Your task to perform on an android device: turn on notifications settings in the gmail app Image 0: 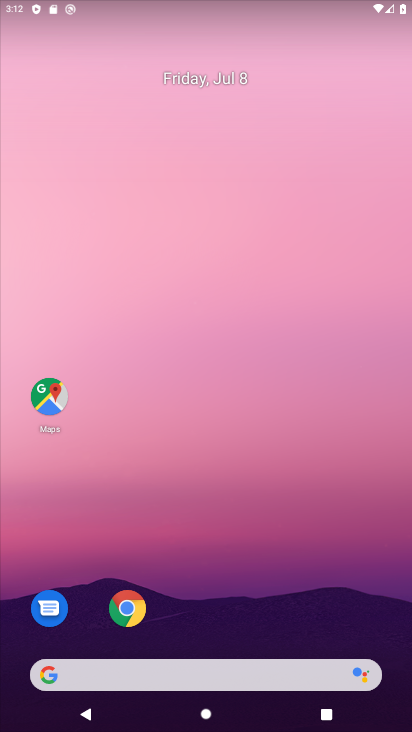
Step 0: press home button
Your task to perform on an android device: turn on notifications settings in the gmail app Image 1: 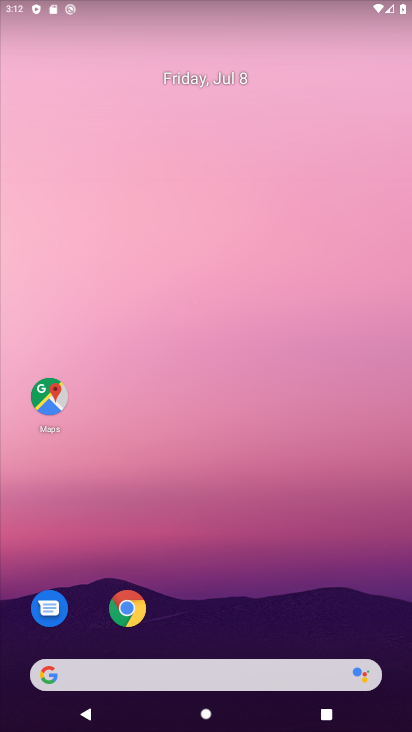
Step 1: drag from (336, 583) to (261, 131)
Your task to perform on an android device: turn on notifications settings in the gmail app Image 2: 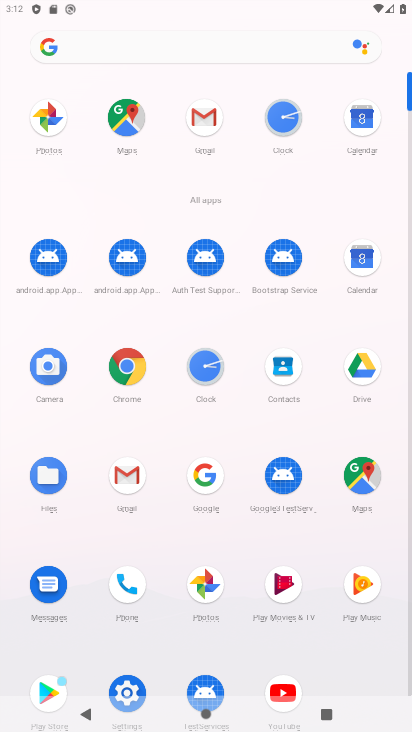
Step 2: click (122, 476)
Your task to perform on an android device: turn on notifications settings in the gmail app Image 3: 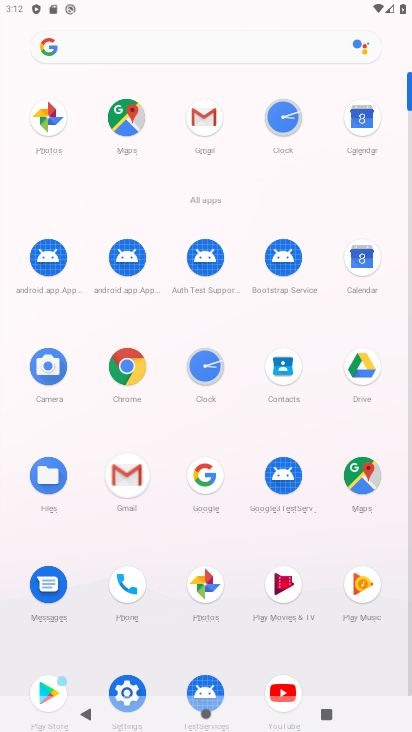
Step 3: click (122, 476)
Your task to perform on an android device: turn on notifications settings in the gmail app Image 4: 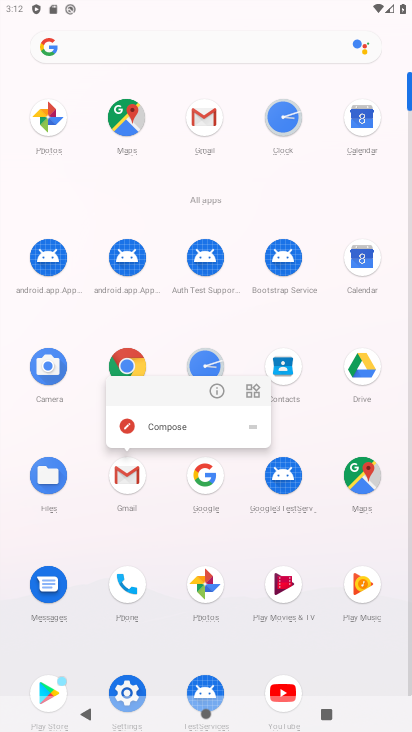
Step 4: click (215, 385)
Your task to perform on an android device: turn on notifications settings in the gmail app Image 5: 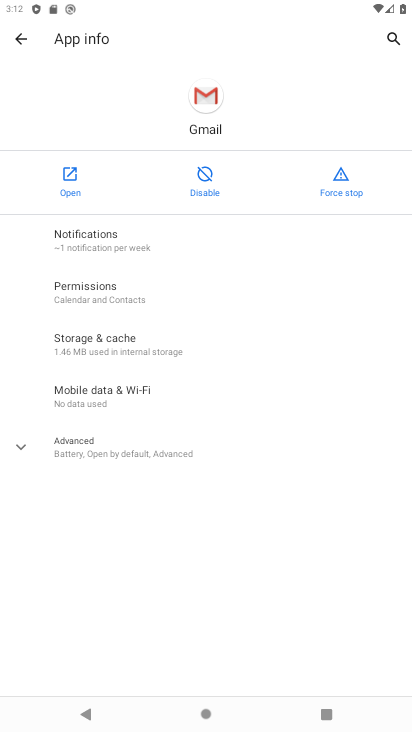
Step 5: click (80, 232)
Your task to perform on an android device: turn on notifications settings in the gmail app Image 6: 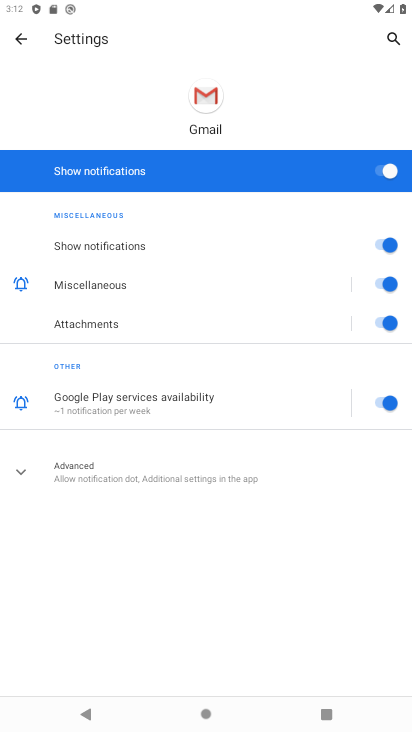
Step 6: task complete